Your task to perform on an android device: Go to Android settings Image 0: 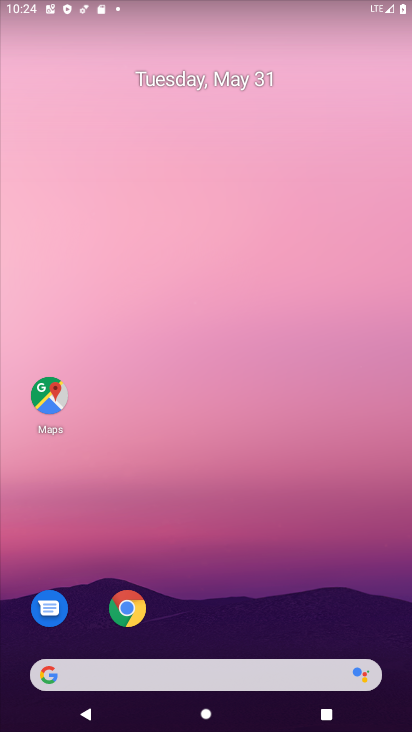
Step 0: drag from (197, 655) to (164, 52)
Your task to perform on an android device: Go to Android settings Image 1: 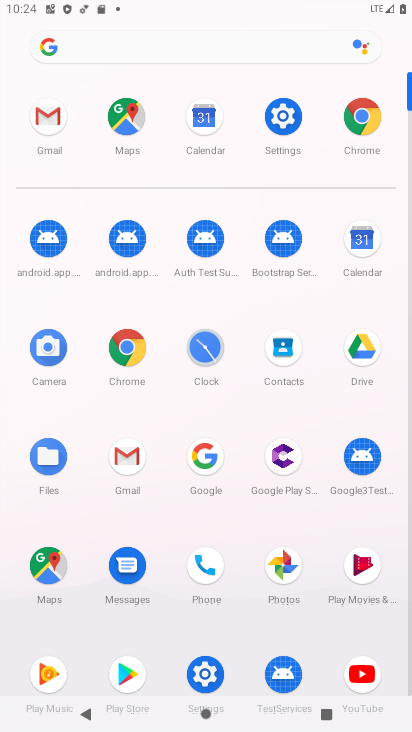
Step 1: click (300, 119)
Your task to perform on an android device: Go to Android settings Image 2: 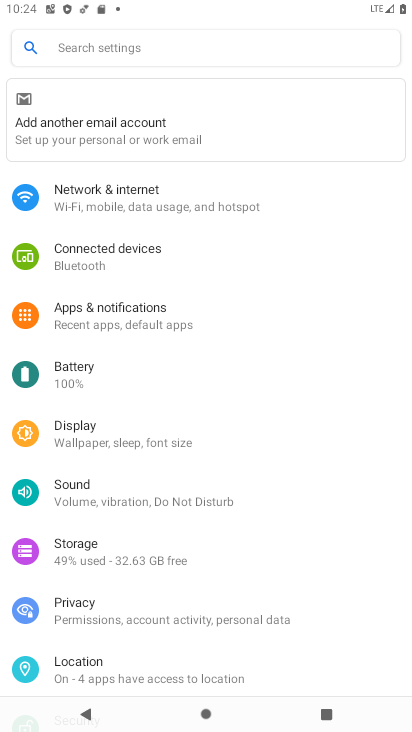
Step 2: task complete